Your task to perform on an android device: open chrome privacy settings Image 0: 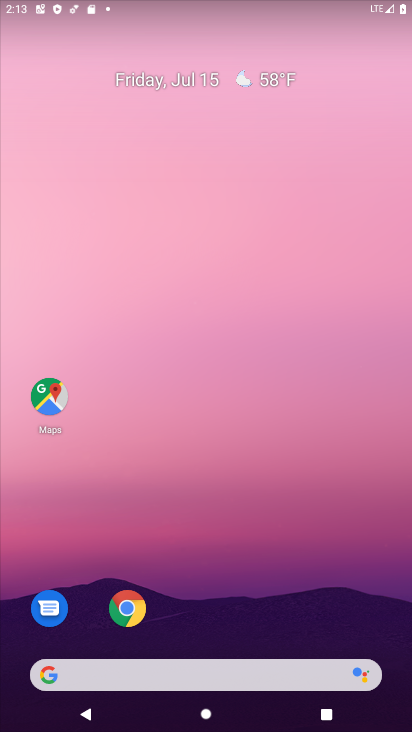
Step 0: drag from (157, 623) to (274, 75)
Your task to perform on an android device: open chrome privacy settings Image 1: 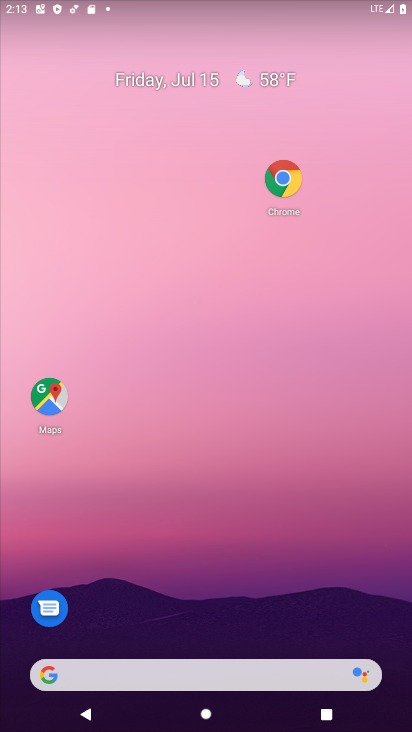
Step 1: drag from (176, 534) to (214, 84)
Your task to perform on an android device: open chrome privacy settings Image 2: 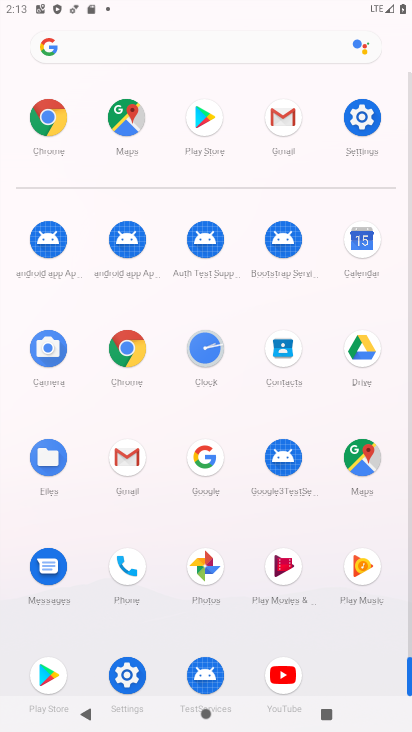
Step 2: click (107, 351)
Your task to perform on an android device: open chrome privacy settings Image 3: 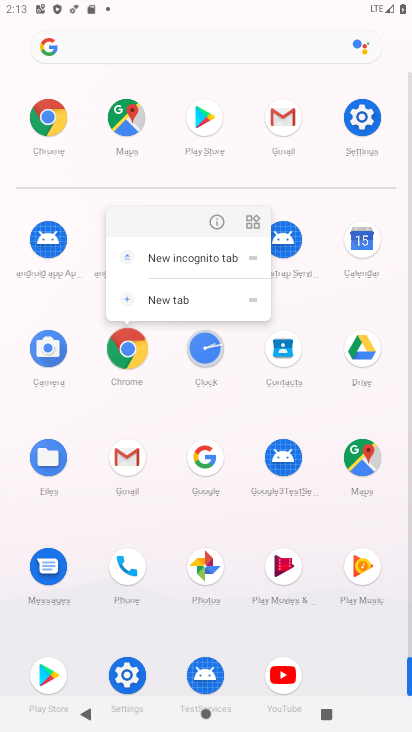
Step 3: click (107, 351)
Your task to perform on an android device: open chrome privacy settings Image 4: 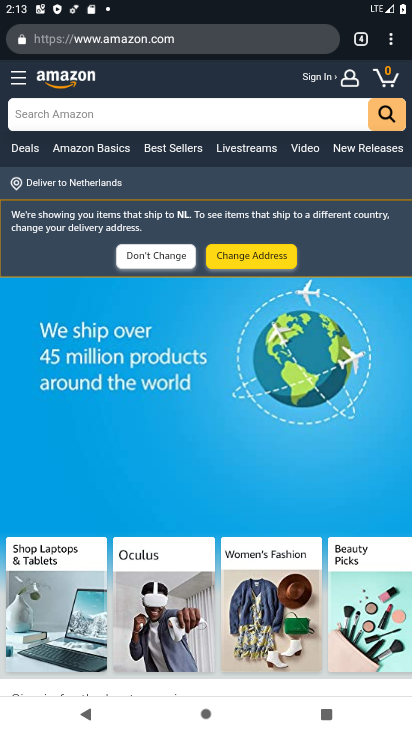
Step 4: drag from (386, 43) to (237, 468)
Your task to perform on an android device: open chrome privacy settings Image 5: 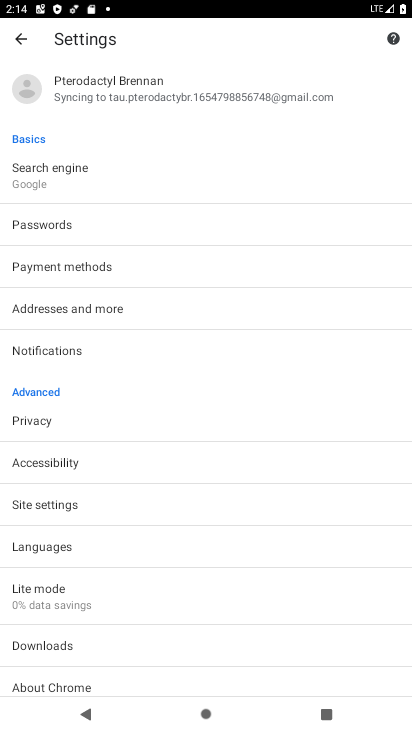
Step 5: click (52, 417)
Your task to perform on an android device: open chrome privacy settings Image 6: 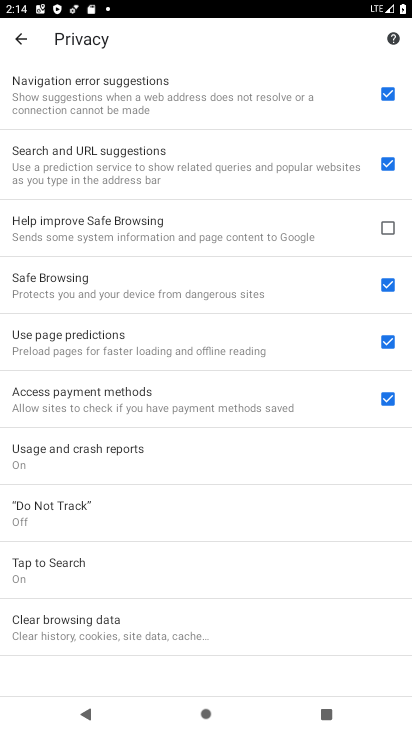
Step 6: task complete